Your task to perform on an android device: Open eBay Image 0: 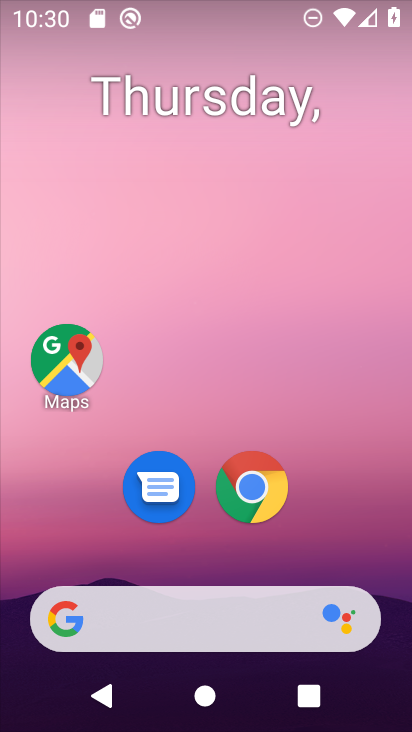
Step 0: click (261, 483)
Your task to perform on an android device: Open eBay Image 1: 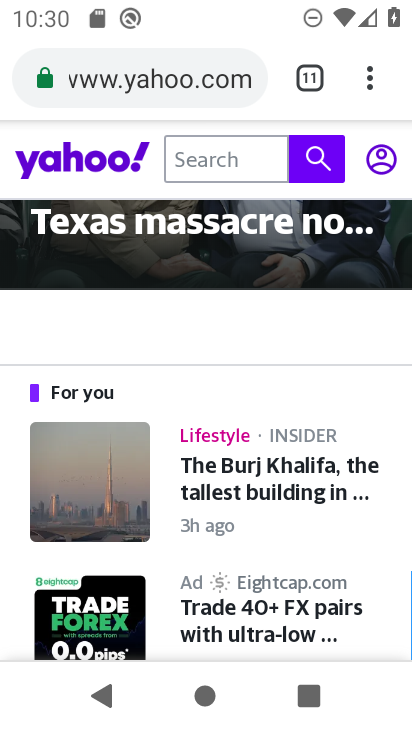
Step 1: click (307, 83)
Your task to perform on an android device: Open eBay Image 2: 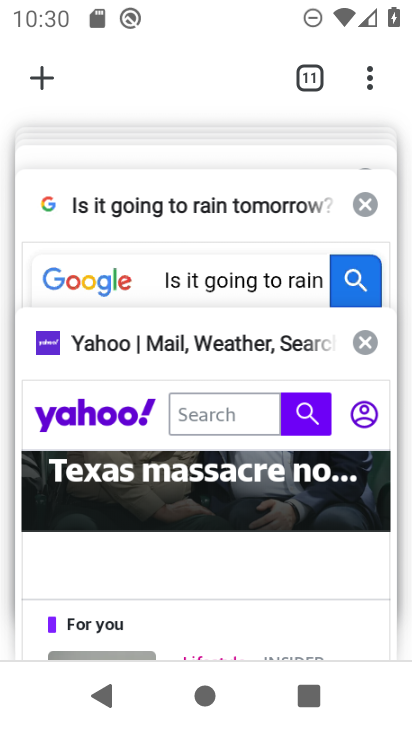
Step 2: drag from (189, 232) to (220, 692)
Your task to perform on an android device: Open eBay Image 3: 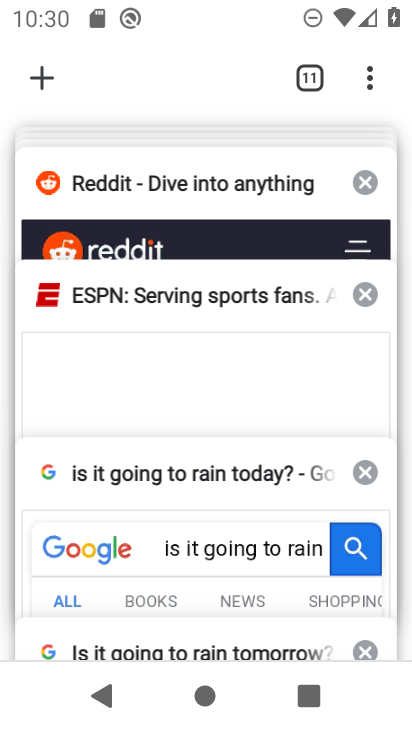
Step 3: drag from (182, 194) to (206, 682)
Your task to perform on an android device: Open eBay Image 4: 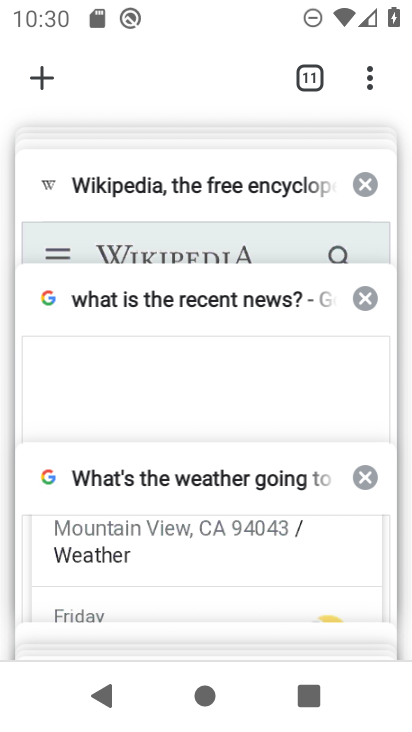
Step 4: drag from (204, 186) to (196, 76)
Your task to perform on an android device: Open eBay Image 5: 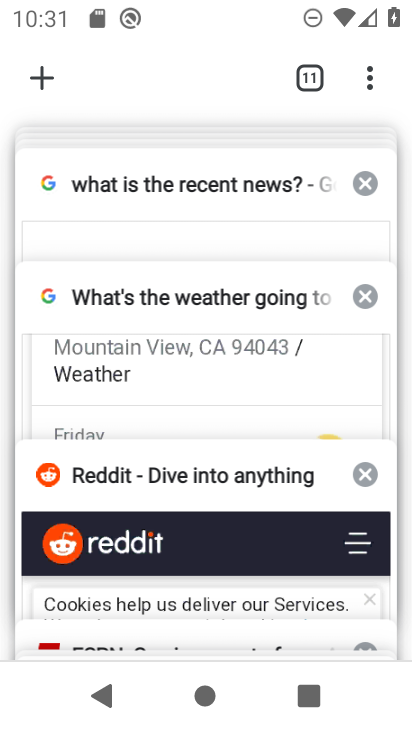
Step 5: drag from (153, 493) to (144, 97)
Your task to perform on an android device: Open eBay Image 6: 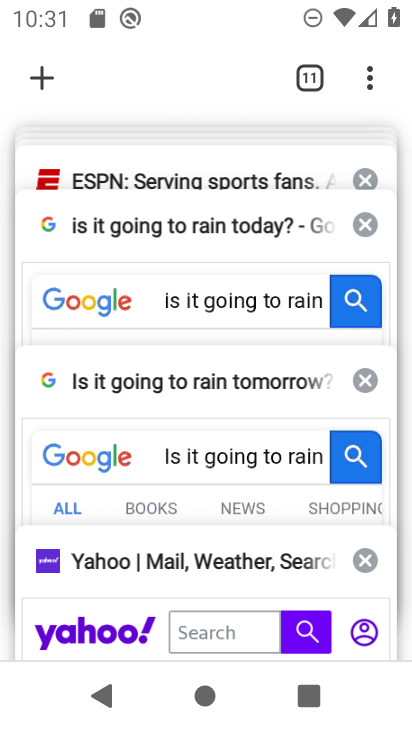
Step 6: drag from (181, 560) to (167, 138)
Your task to perform on an android device: Open eBay Image 7: 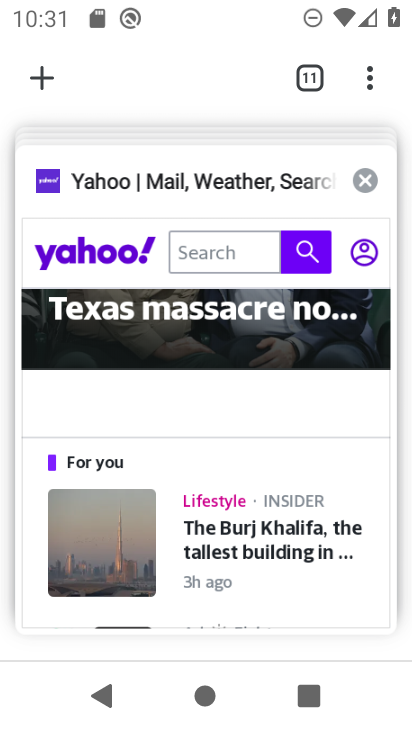
Step 7: click (42, 80)
Your task to perform on an android device: Open eBay Image 8: 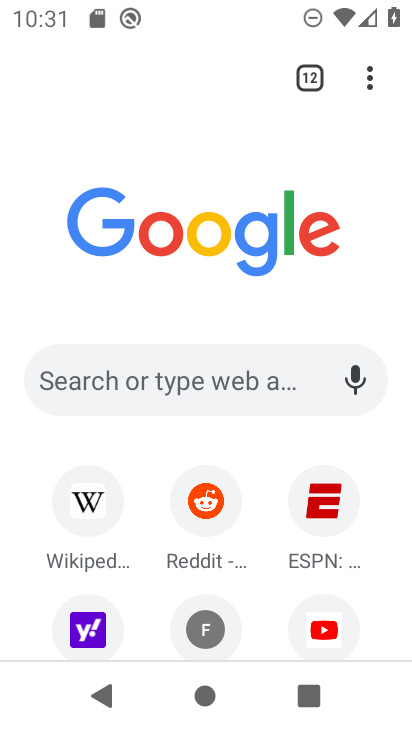
Step 8: click (115, 372)
Your task to perform on an android device: Open eBay Image 9: 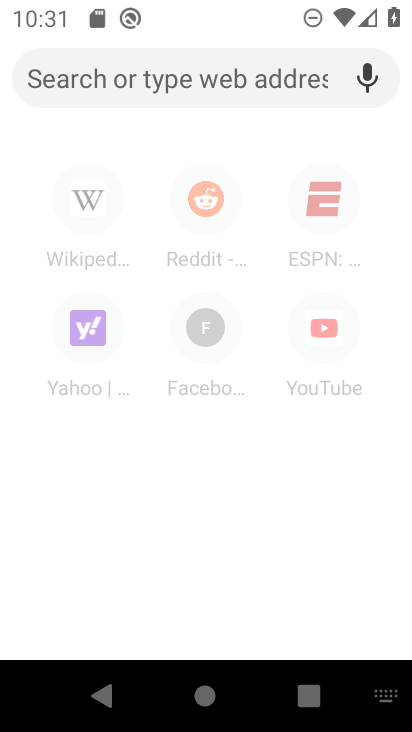
Step 9: type "ebay"
Your task to perform on an android device: Open eBay Image 10: 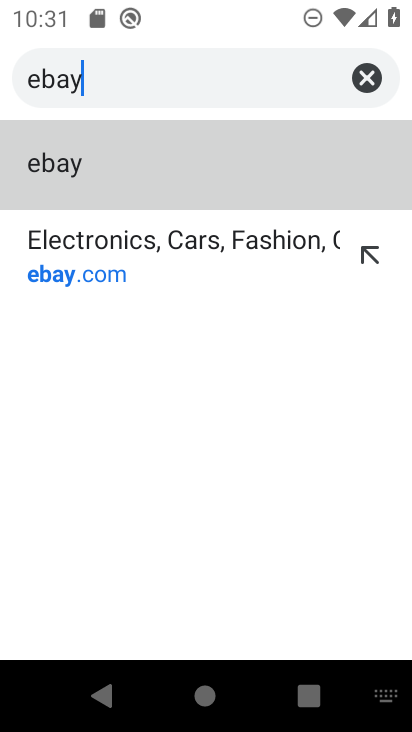
Step 10: click (248, 262)
Your task to perform on an android device: Open eBay Image 11: 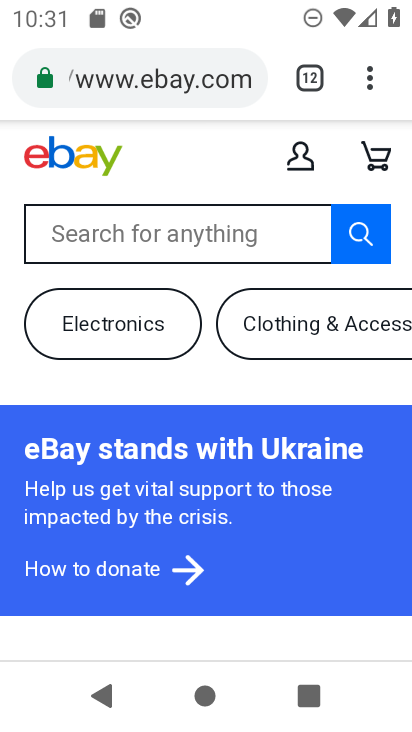
Step 11: task complete